Your task to perform on an android device: Add apple airpods pro to the cart on newegg.com Image 0: 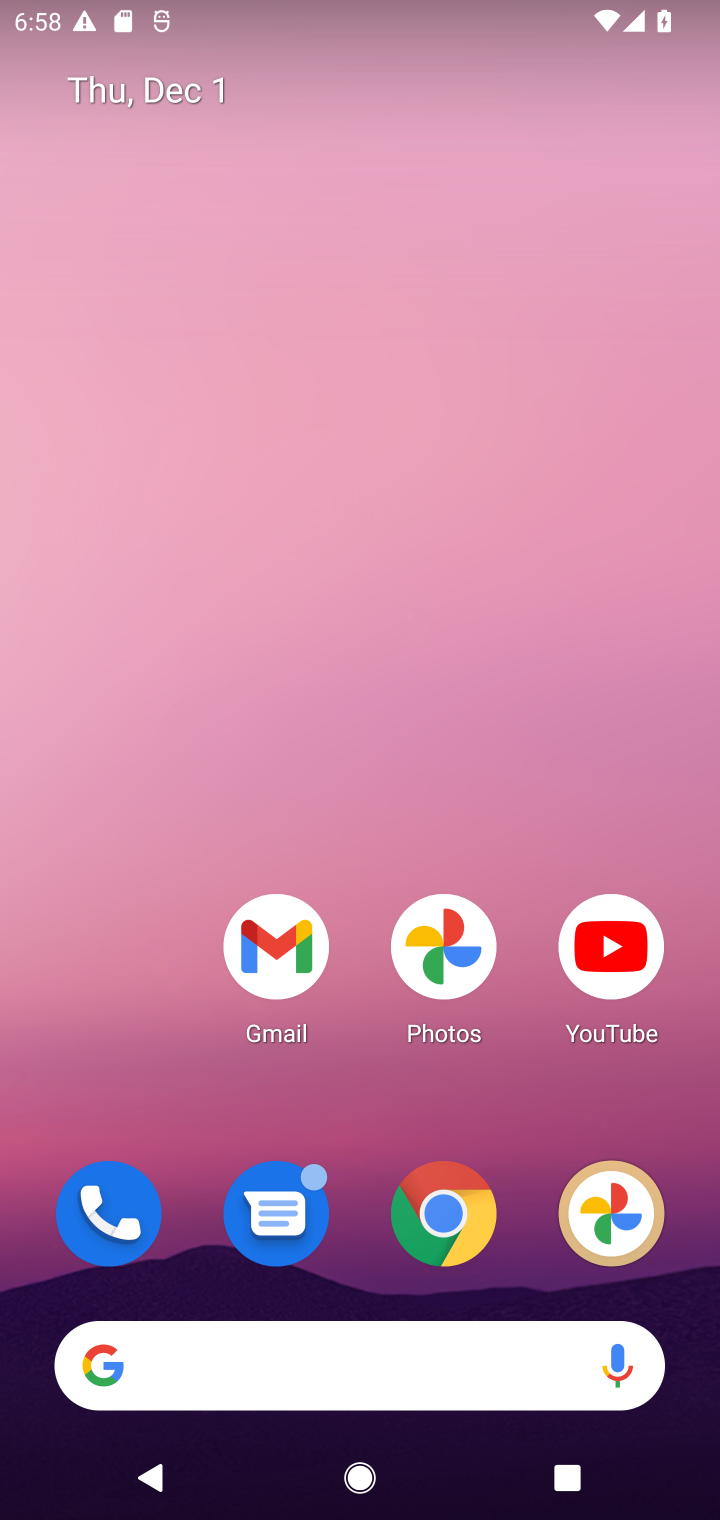
Step 0: click (433, 1354)
Your task to perform on an android device: Add apple airpods pro to the cart on newegg.com Image 1: 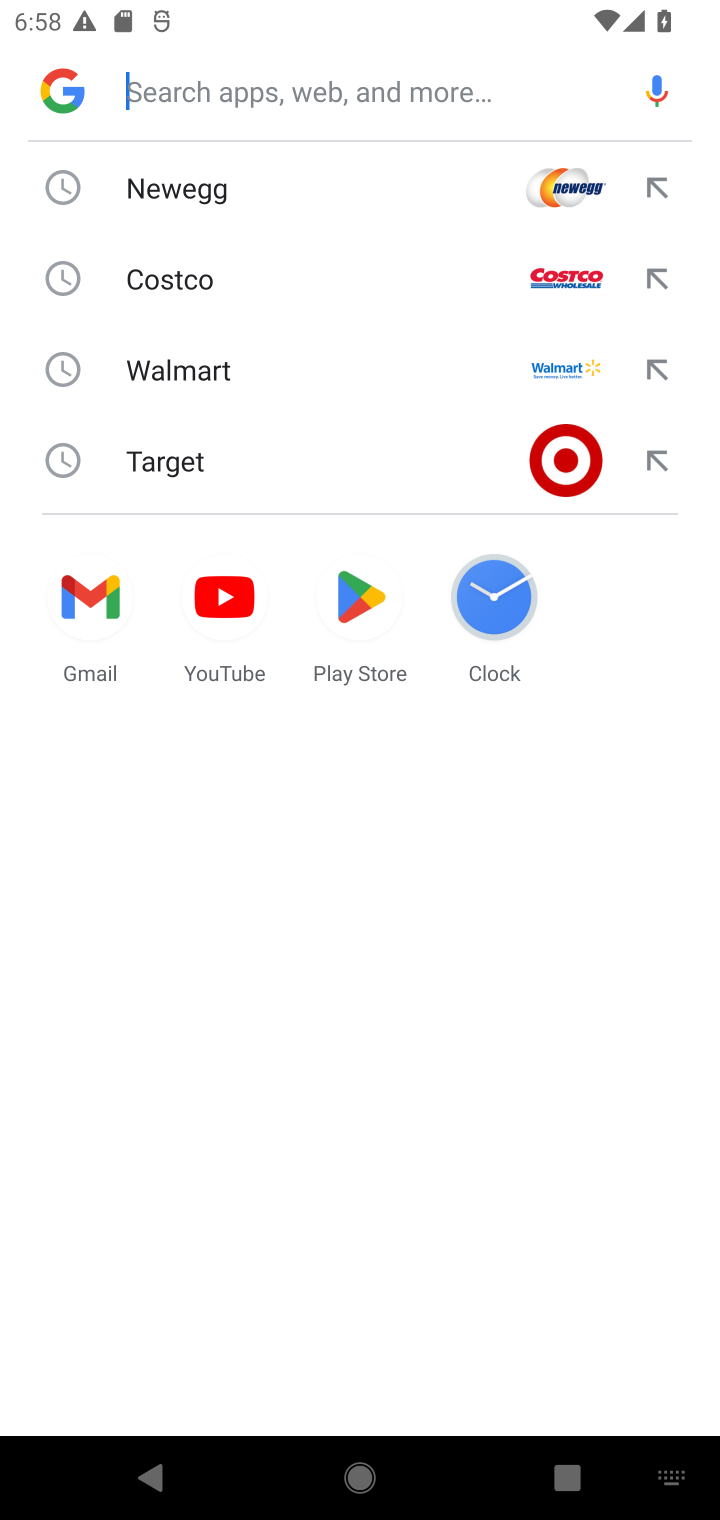
Step 1: click (281, 201)
Your task to perform on an android device: Add apple airpods pro to the cart on newegg.com Image 2: 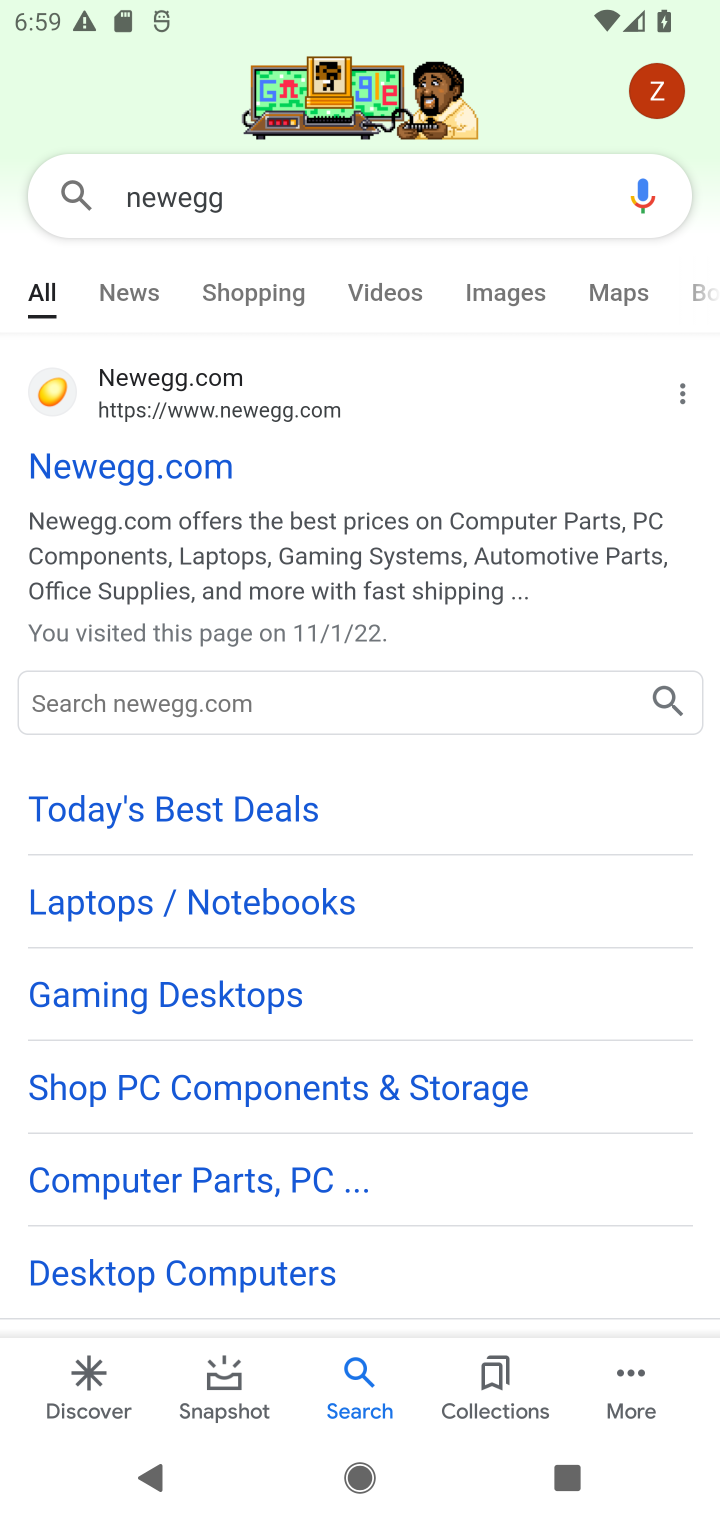
Step 2: click (102, 420)
Your task to perform on an android device: Add apple airpods pro to the cart on newegg.com Image 3: 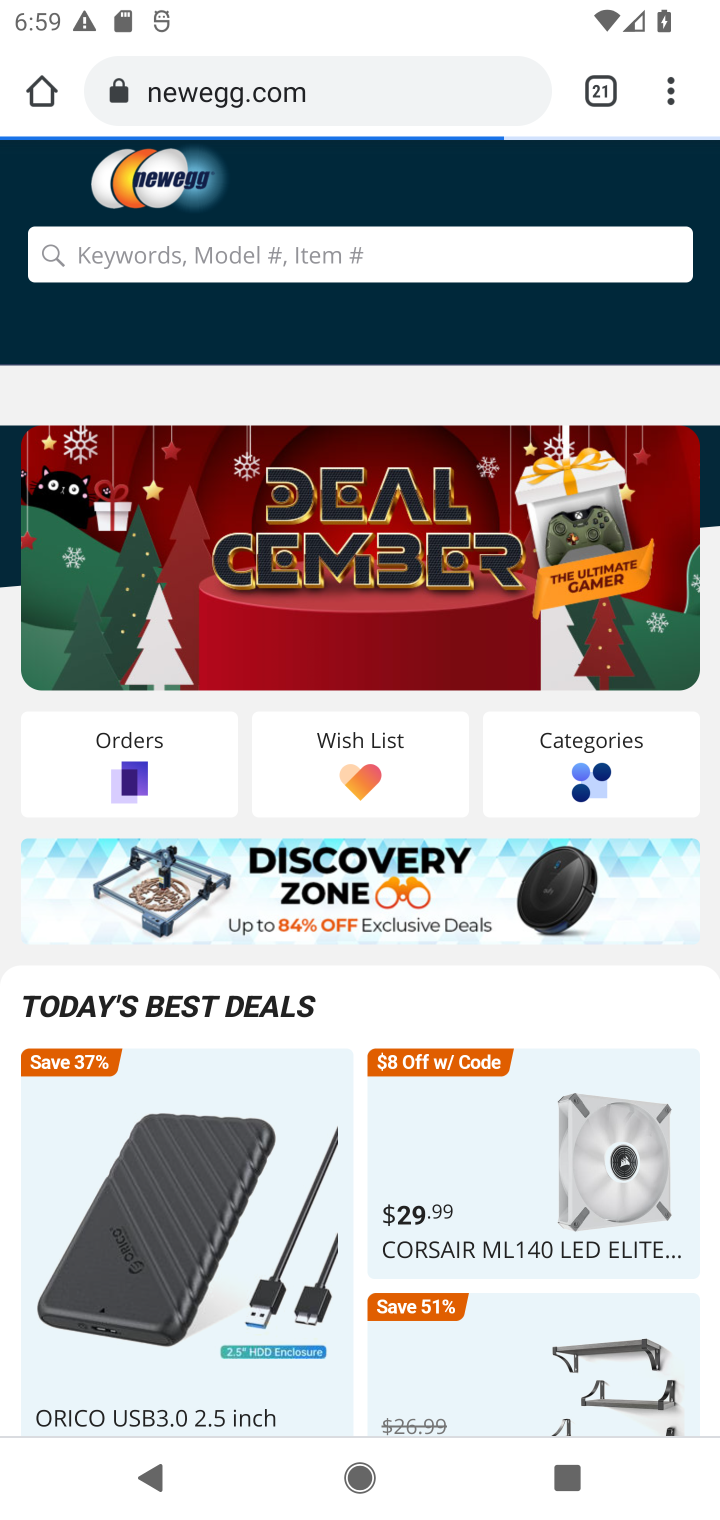
Step 3: task complete